Your task to perform on an android device: Go to settings Image 0: 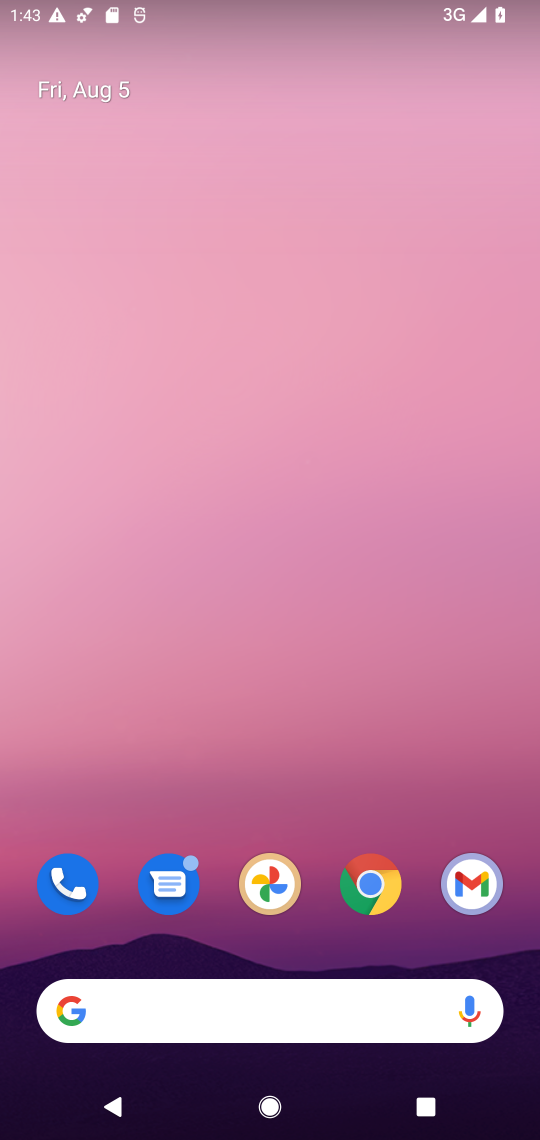
Step 0: drag from (445, 936) to (241, 46)
Your task to perform on an android device: Go to settings Image 1: 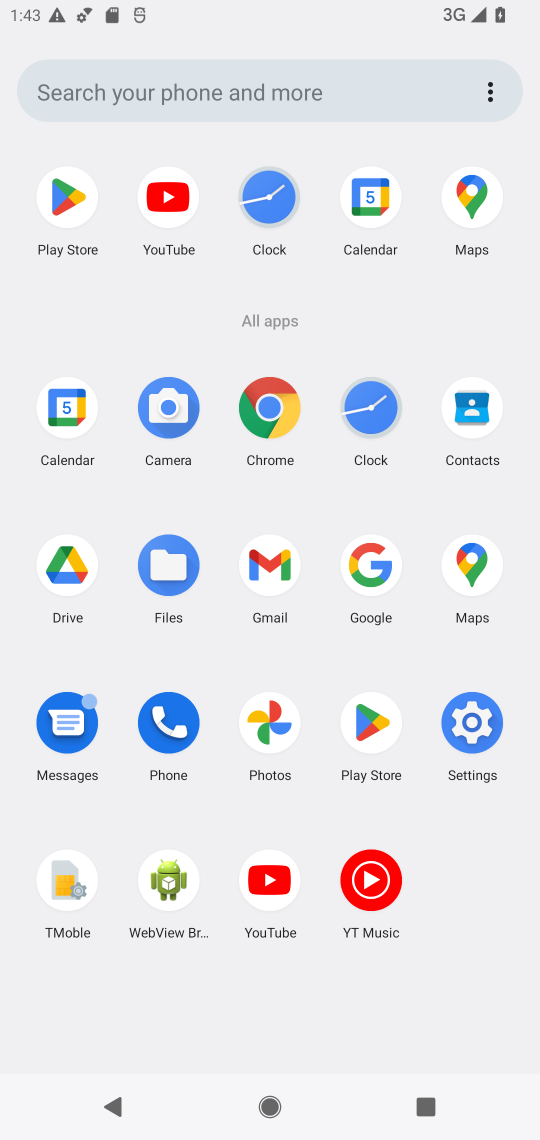
Step 1: click (479, 734)
Your task to perform on an android device: Go to settings Image 2: 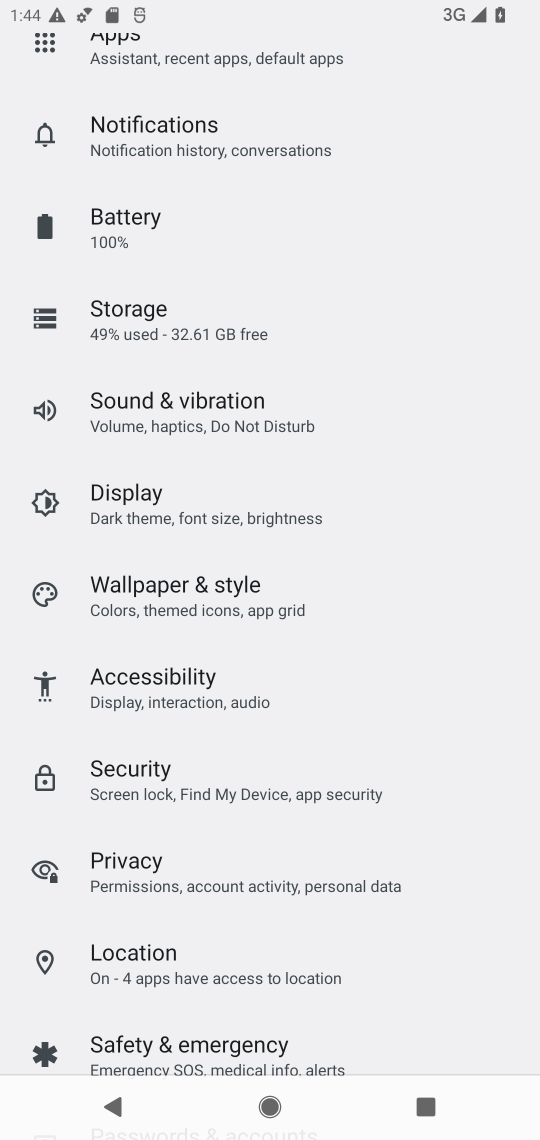
Step 2: task complete